Your task to perform on an android device: Go to Yahoo.com Image 0: 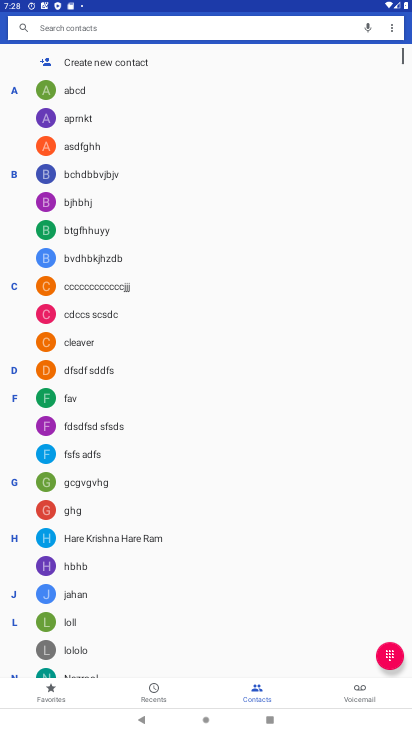
Step 0: press home button
Your task to perform on an android device: Go to Yahoo.com Image 1: 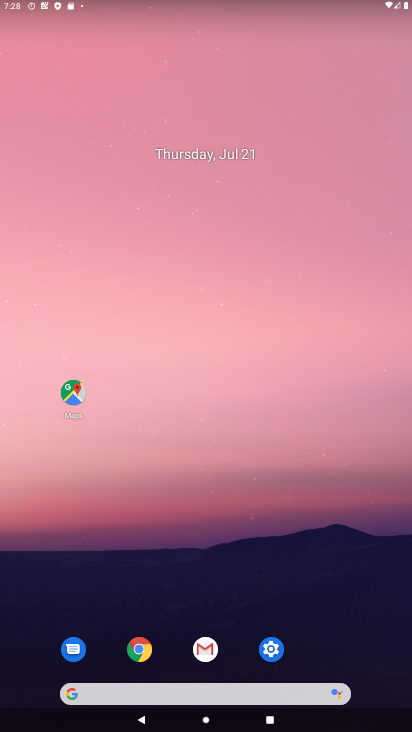
Step 1: click (143, 659)
Your task to perform on an android device: Go to Yahoo.com Image 2: 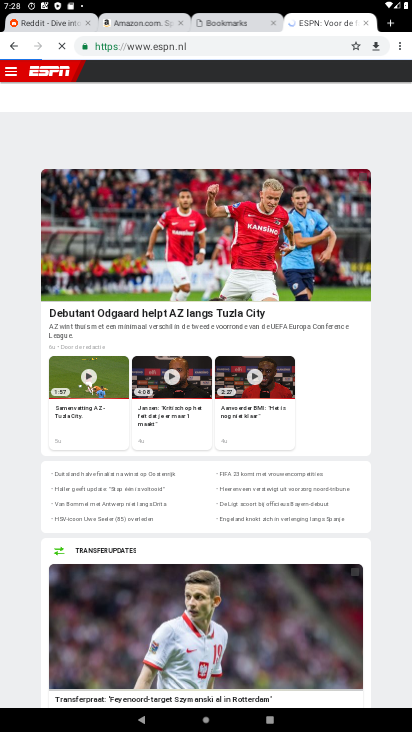
Step 2: click (385, 20)
Your task to perform on an android device: Go to Yahoo.com Image 3: 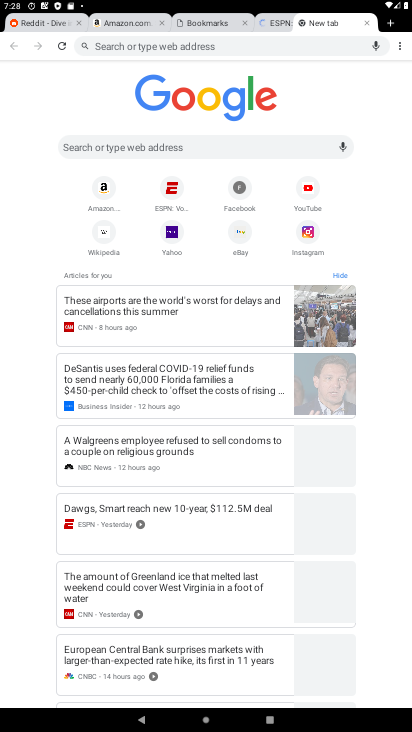
Step 3: click (173, 238)
Your task to perform on an android device: Go to Yahoo.com Image 4: 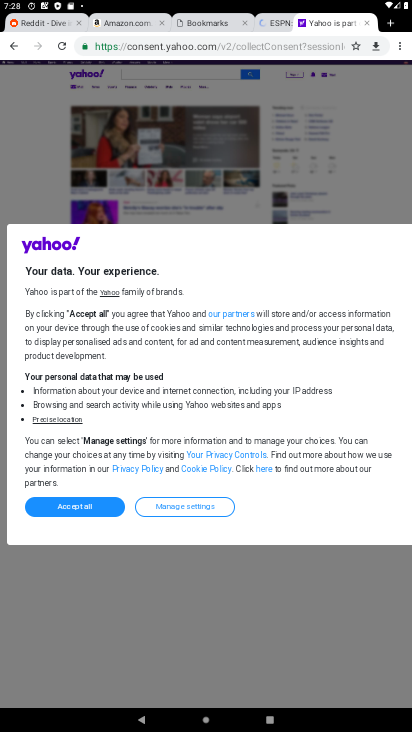
Step 4: click (80, 500)
Your task to perform on an android device: Go to Yahoo.com Image 5: 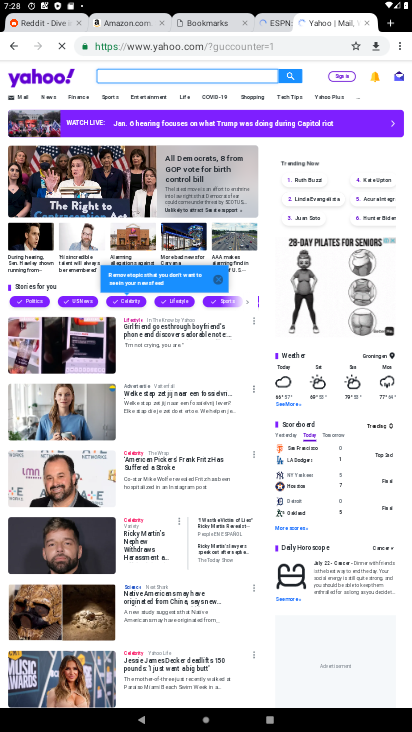
Step 5: task complete